Your task to perform on an android device: Open Chrome and go to the settings page Image 0: 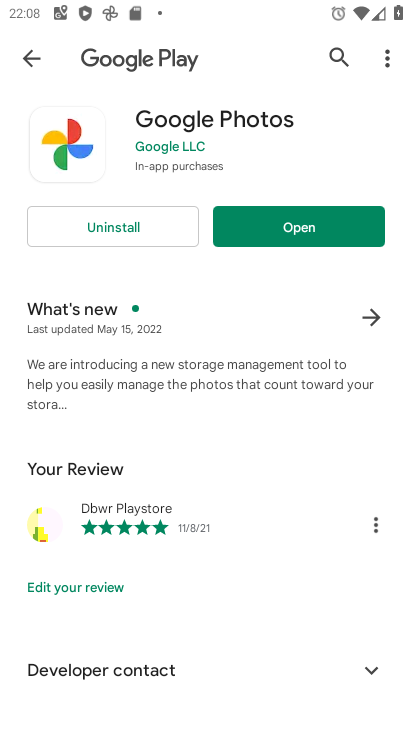
Step 0: press home button
Your task to perform on an android device: Open Chrome and go to the settings page Image 1: 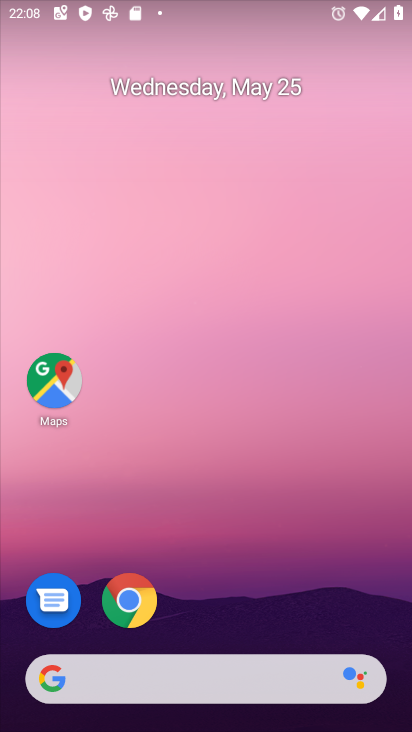
Step 1: drag from (357, 595) to (342, 162)
Your task to perform on an android device: Open Chrome and go to the settings page Image 2: 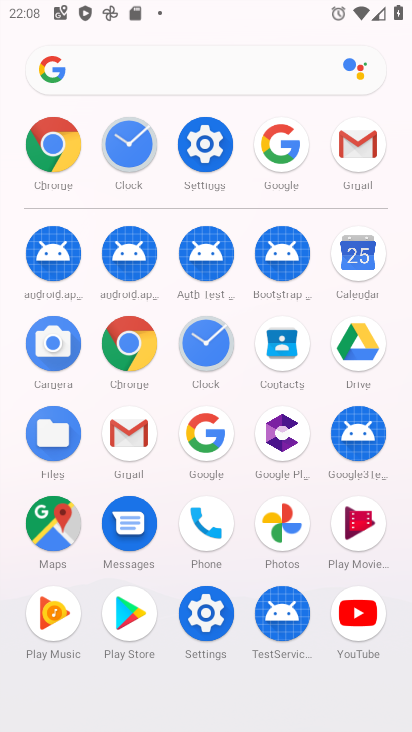
Step 2: click (143, 334)
Your task to perform on an android device: Open Chrome and go to the settings page Image 3: 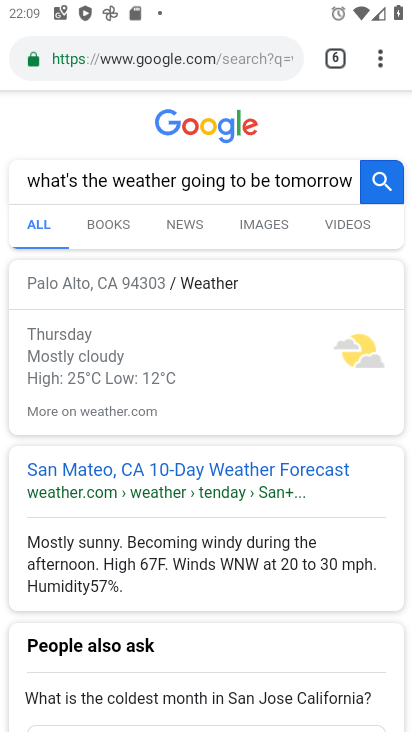
Step 3: task complete